Your task to perform on an android device: Search for the new nike air max shoes on Nike. Image 0: 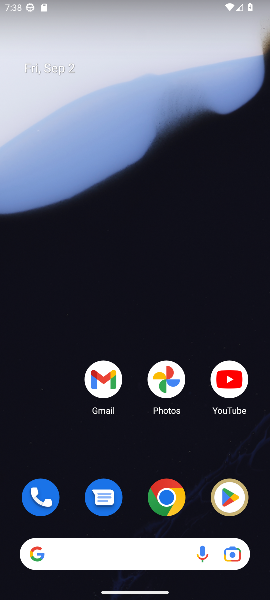
Step 0: click (122, 162)
Your task to perform on an android device: Search for the new nike air max shoes on Nike. Image 1: 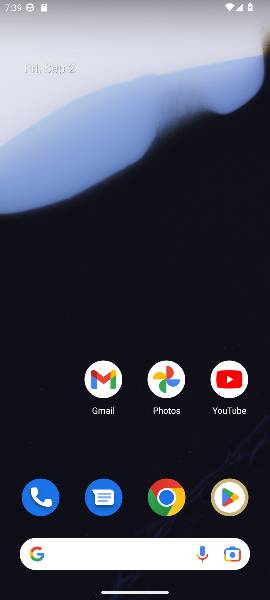
Step 1: drag from (133, 484) to (132, 88)
Your task to perform on an android device: Search for the new nike air max shoes on Nike. Image 2: 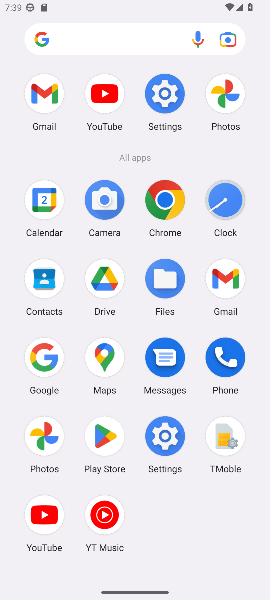
Step 2: click (40, 368)
Your task to perform on an android device: Search for the new nike air max shoes on Nike. Image 3: 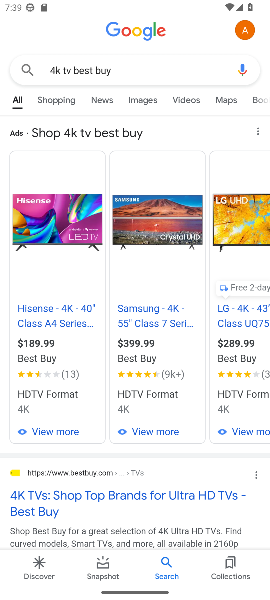
Step 3: click (142, 58)
Your task to perform on an android device: Search for the new nike air max shoes on Nike. Image 4: 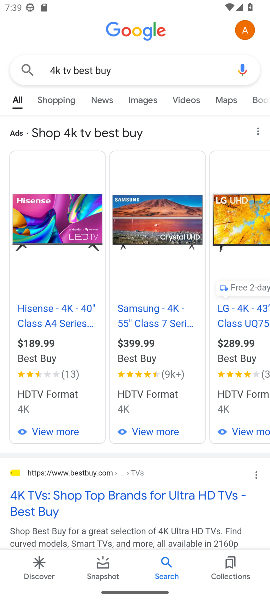
Step 4: click (142, 58)
Your task to perform on an android device: Search for the new nike air max shoes on Nike. Image 5: 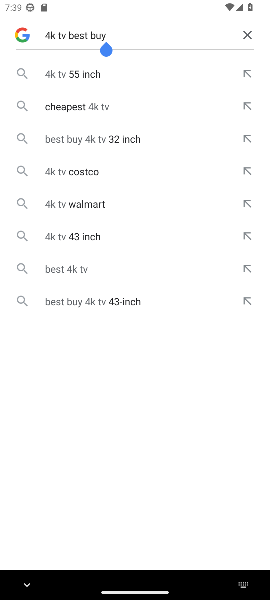
Step 5: click (248, 35)
Your task to perform on an android device: Search for the new nike air max shoes on Nike. Image 6: 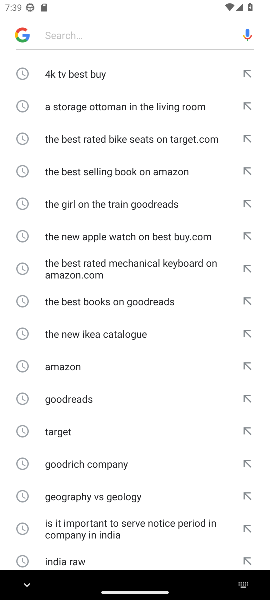
Step 6: type "the new nike air max shoes on Nike."
Your task to perform on an android device: Search for the new nike air max shoes on Nike. Image 7: 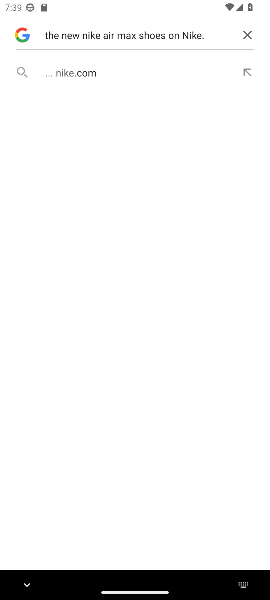
Step 7: click (89, 69)
Your task to perform on an android device: Search for the new nike air max shoes on Nike. Image 8: 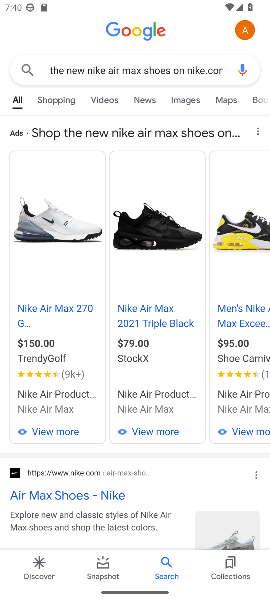
Step 8: task complete